Your task to perform on an android device: Check the new Jordans on Nike. Image 0: 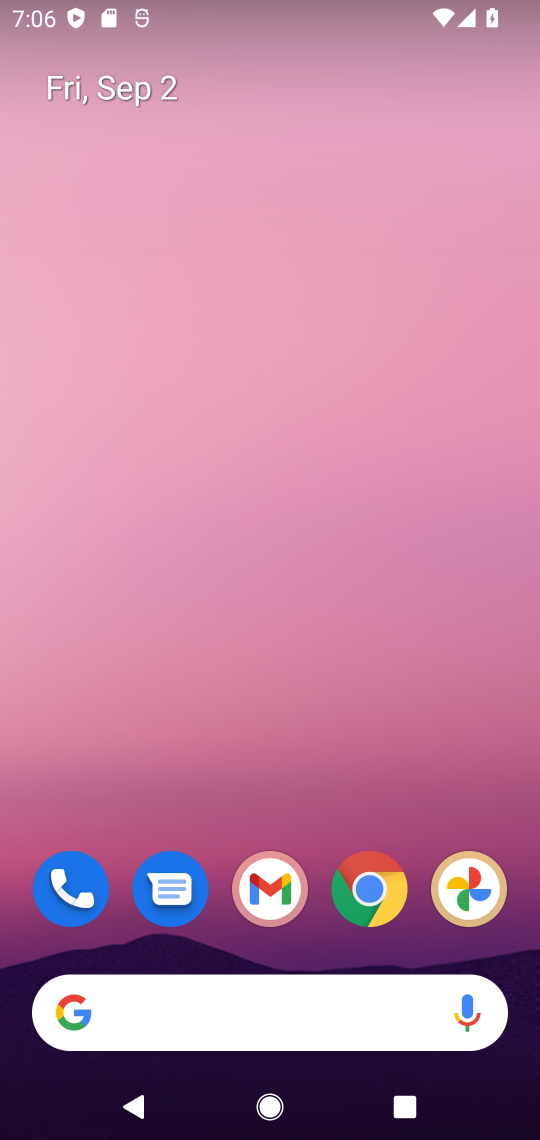
Step 0: click (288, 1015)
Your task to perform on an android device: Check the new Jordans on Nike. Image 1: 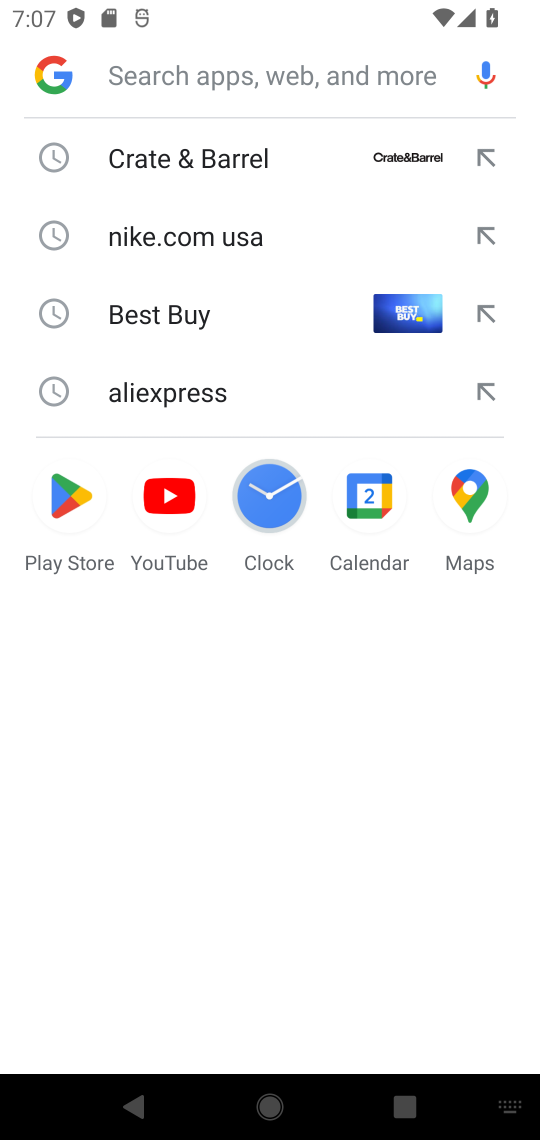
Step 1: type "Nike"
Your task to perform on an android device: Check the new Jordans on Nike. Image 2: 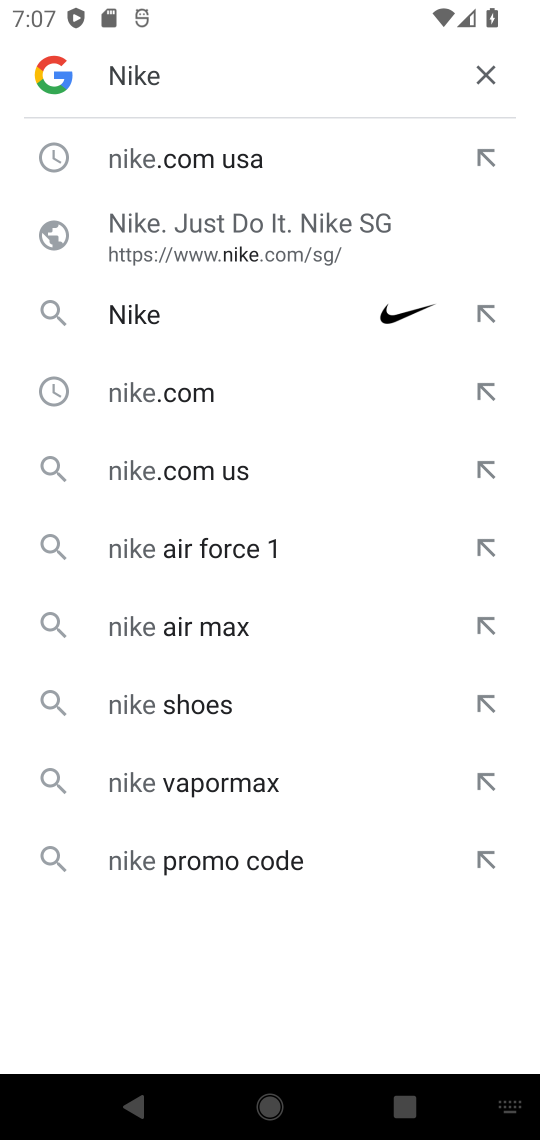
Step 2: click (157, 313)
Your task to perform on an android device: Check the new Jordans on Nike. Image 3: 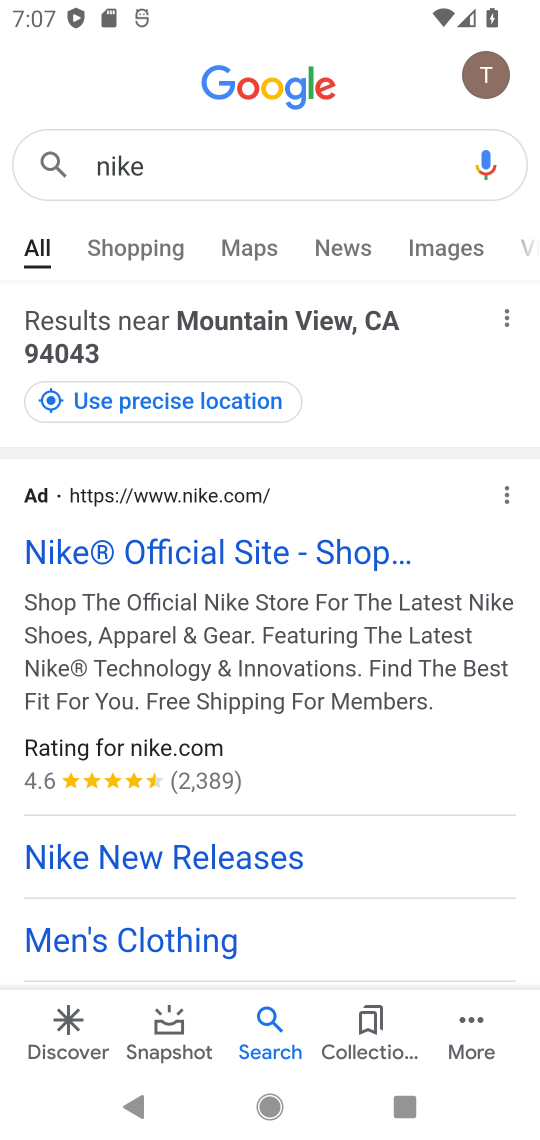
Step 3: drag from (275, 714) to (282, 414)
Your task to perform on an android device: Check the new Jordans on Nike. Image 4: 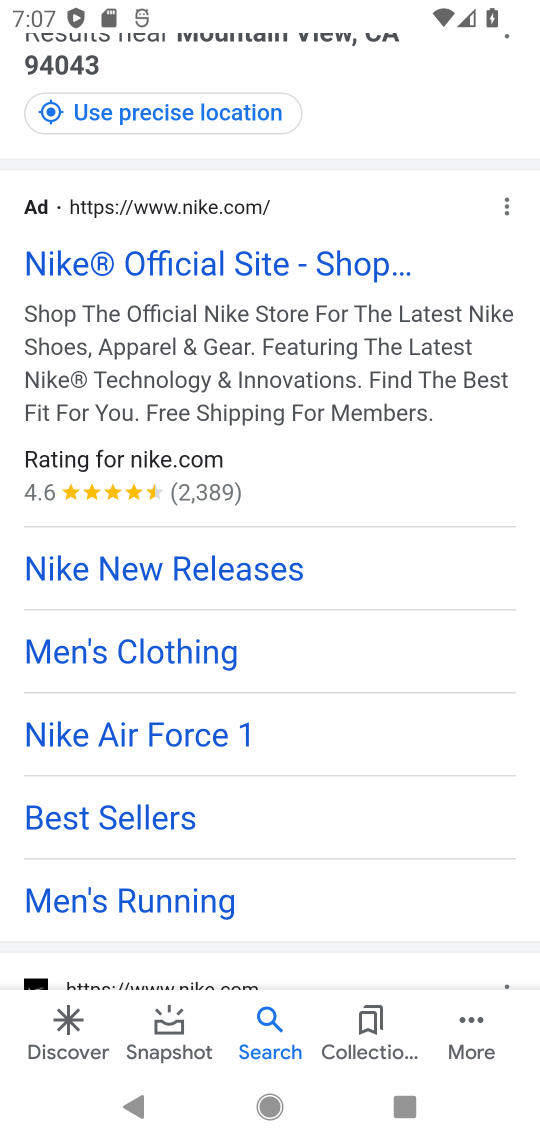
Step 4: drag from (254, 686) to (241, 489)
Your task to perform on an android device: Check the new Jordans on Nike. Image 5: 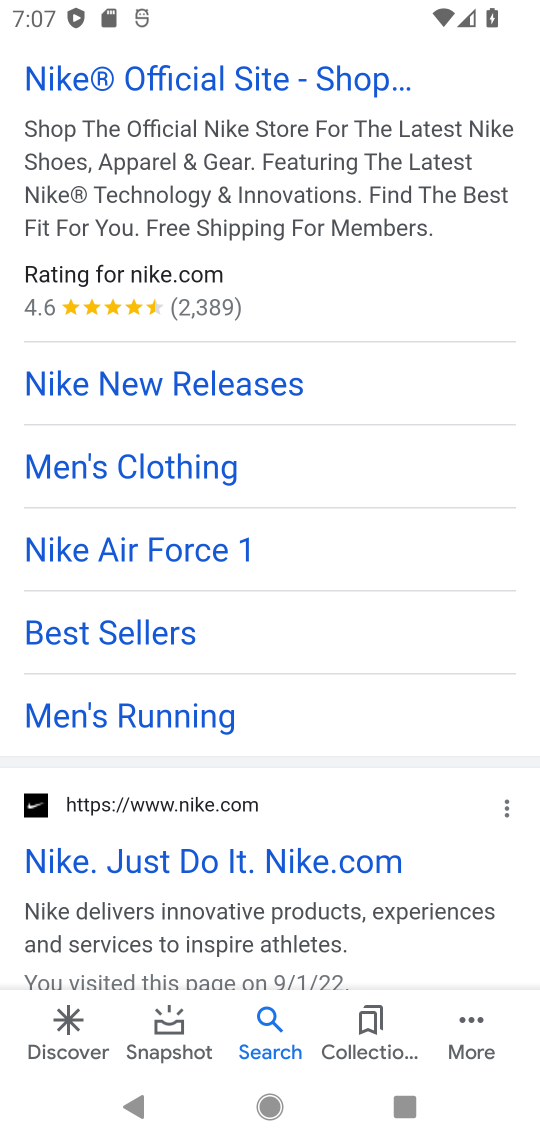
Step 5: drag from (220, 841) to (228, 531)
Your task to perform on an android device: Check the new Jordans on Nike. Image 6: 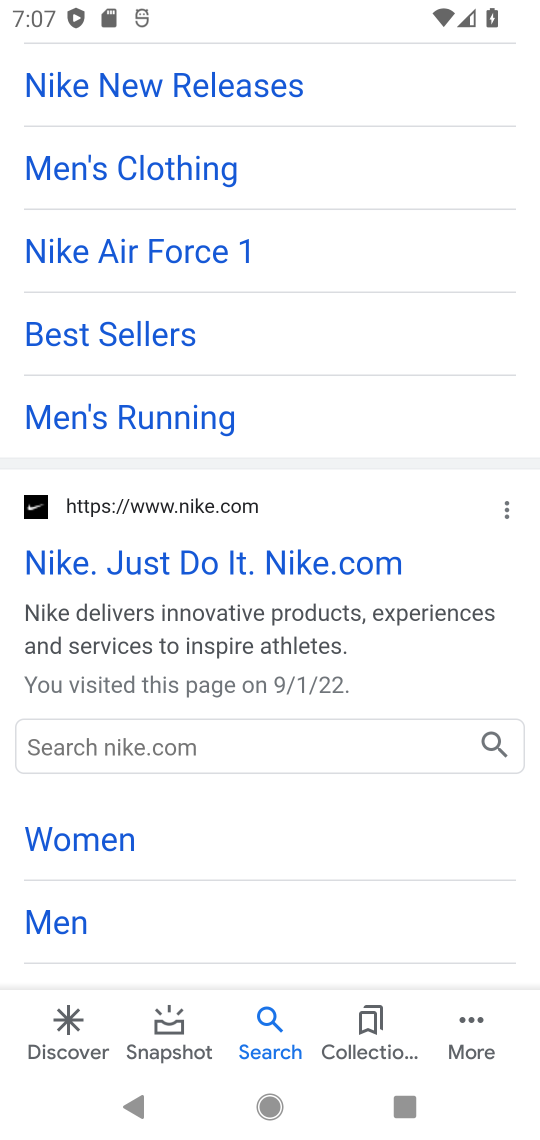
Step 6: click (219, 553)
Your task to perform on an android device: Check the new Jordans on Nike. Image 7: 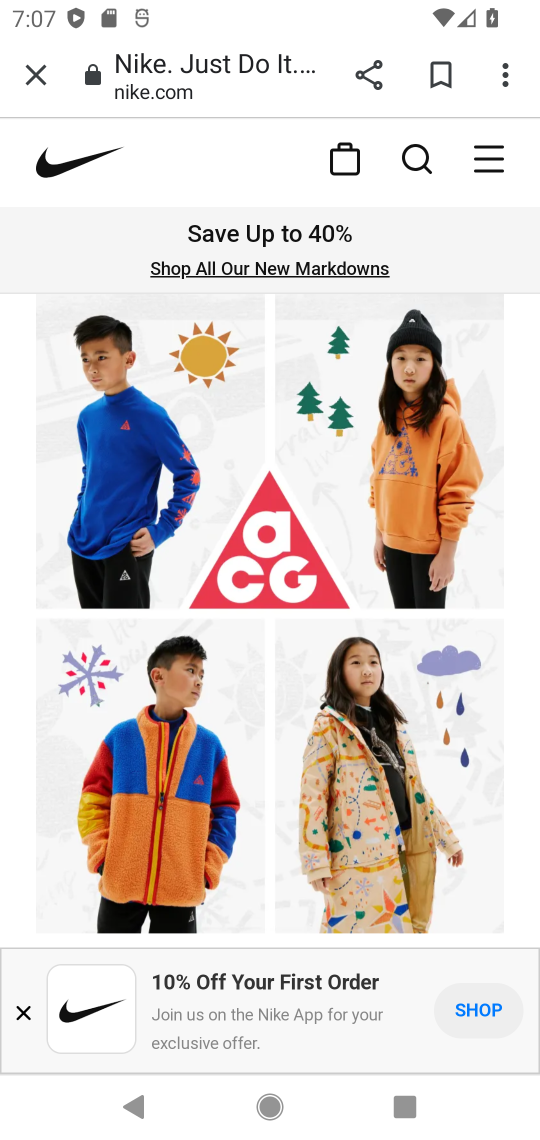
Step 7: click (405, 168)
Your task to perform on an android device: Check the new Jordans on Nike. Image 8: 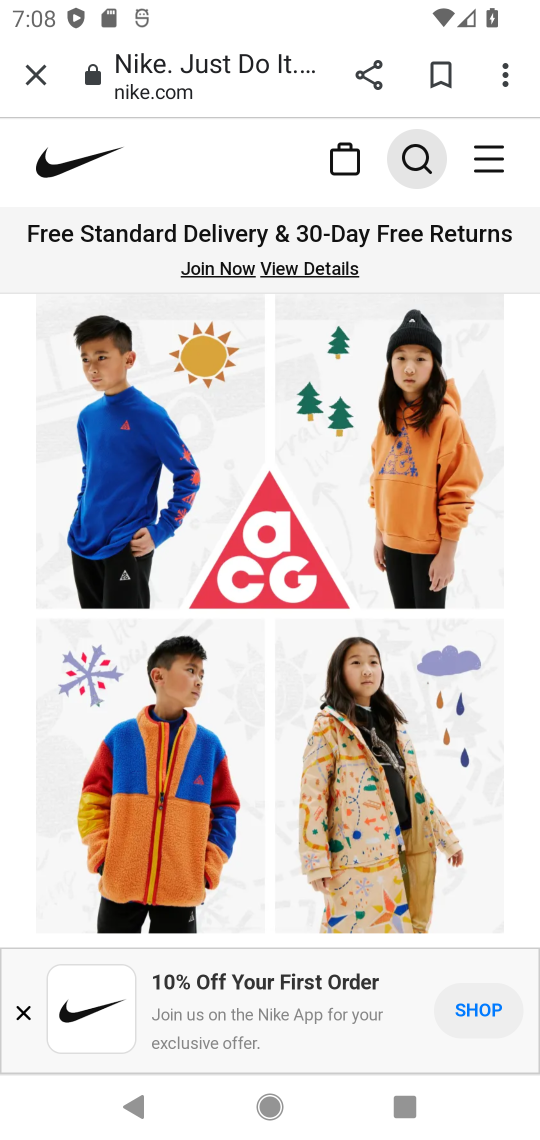
Step 8: type "new Jordan"
Your task to perform on an android device: Check the new Jordans on Nike. Image 9: 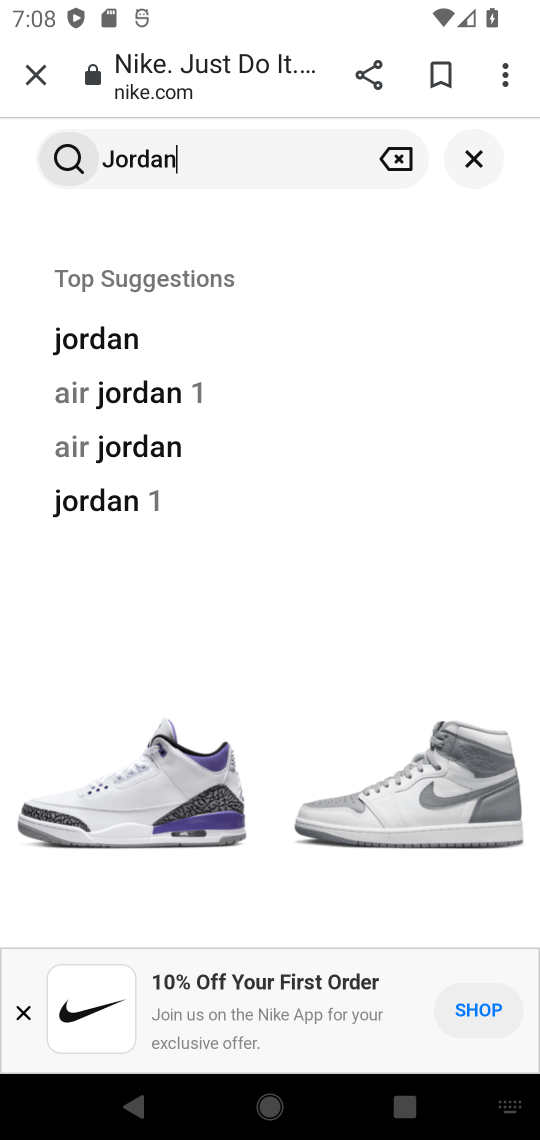
Step 9: click (108, 342)
Your task to perform on an android device: Check the new Jordans on Nike. Image 10: 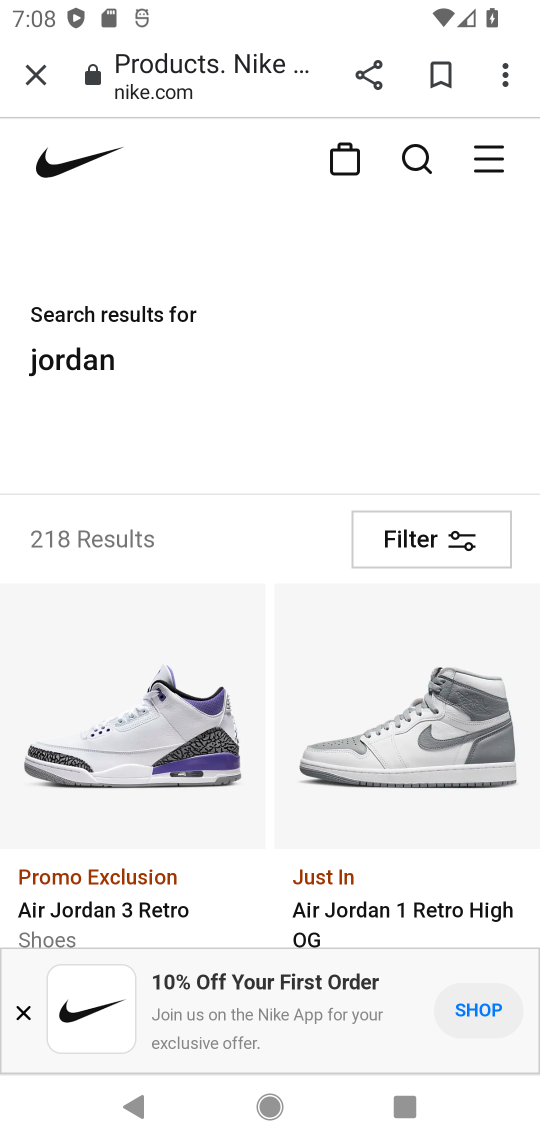
Step 10: task complete